Your task to perform on an android device: toggle notifications settings in the gmail app Image 0: 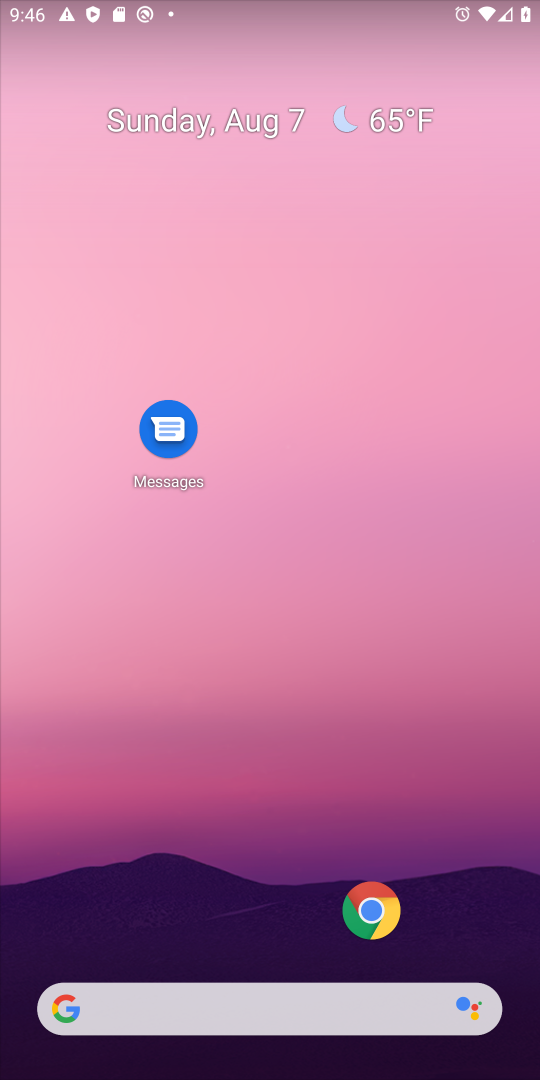
Step 0: drag from (233, 933) to (233, 557)
Your task to perform on an android device: toggle notifications settings in the gmail app Image 1: 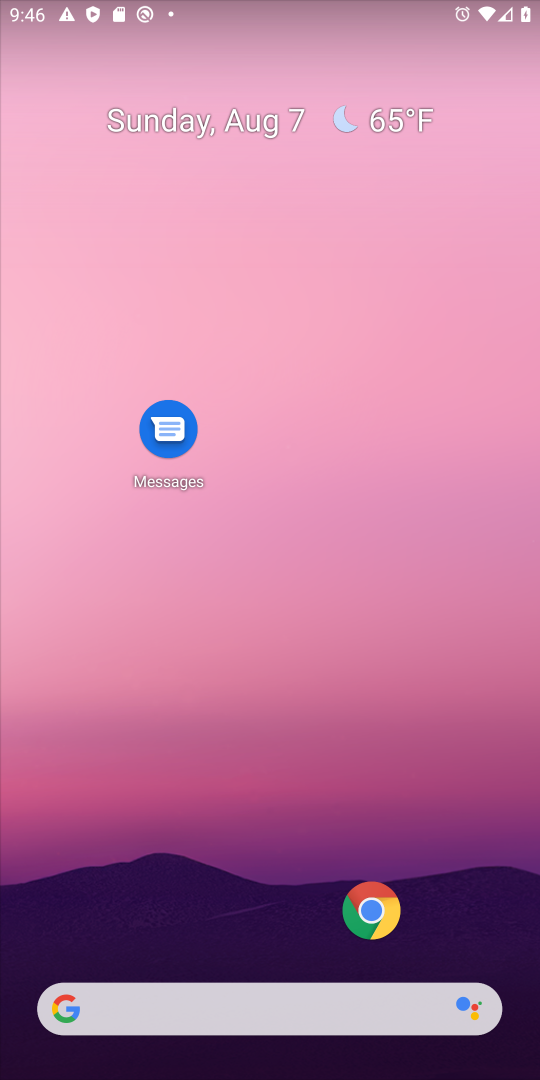
Step 1: drag from (247, 964) to (247, 411)
Your task to perform on an android device: toggle notifications settings in the gmail app Image 2: 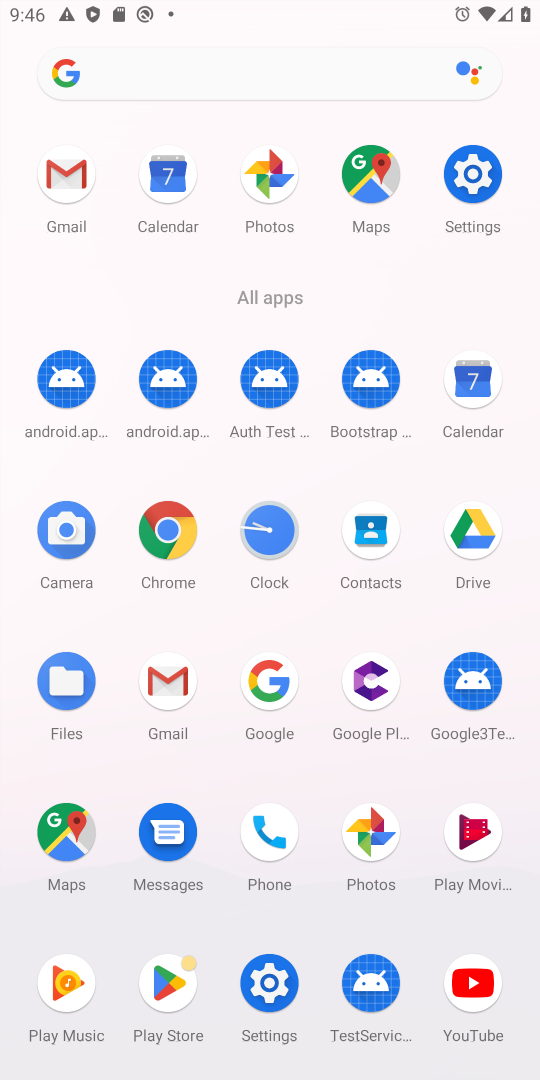
Step 2: click (80, 175)
Your task to perform on an android device: toggle notifications settings in the gmail app Image 3: 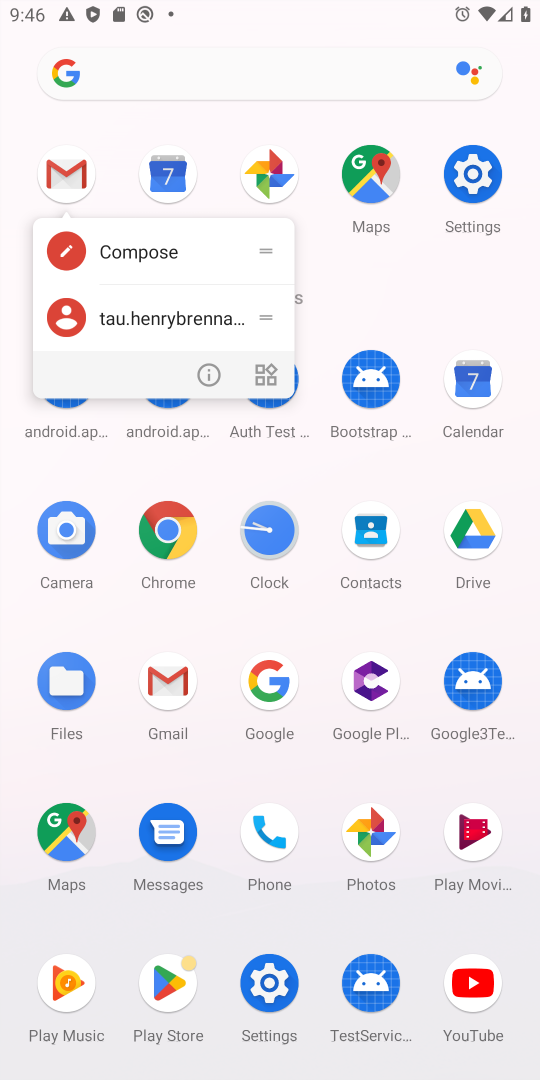
Step 3: click (58, 179)
Your task to perform on an android device: toggle notifications settings in the gmail app Image 4: 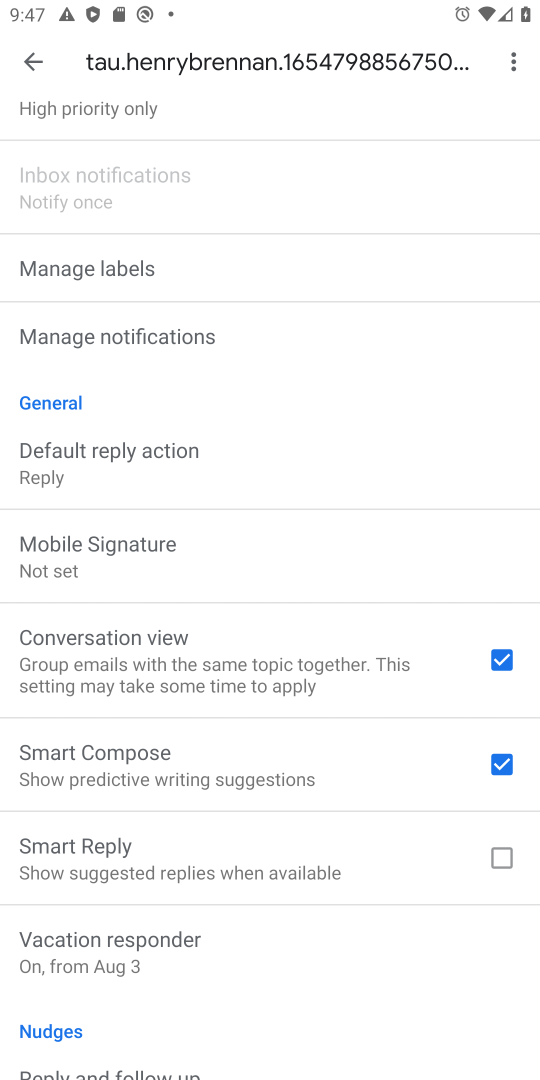
Step 4: drag from (143, 982) to (143, 398)
Your task to perform on an android device: toggle notifications settings in the gmail app Image 5: 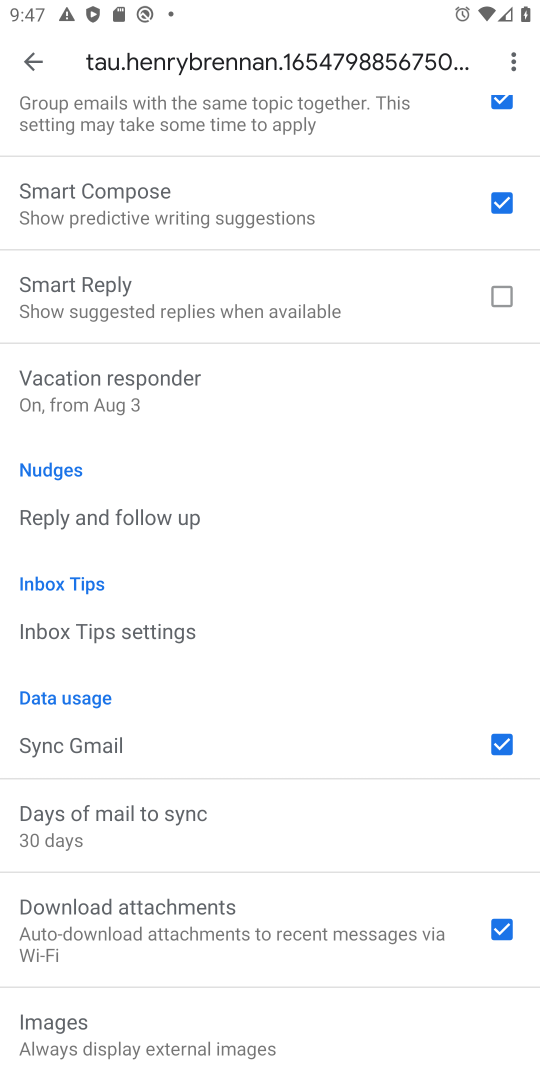
Step 5: drag from (114, 150) to (180, 747)
Your task to perform on an android device: toggle notifications settings in the gmail app Image 6: 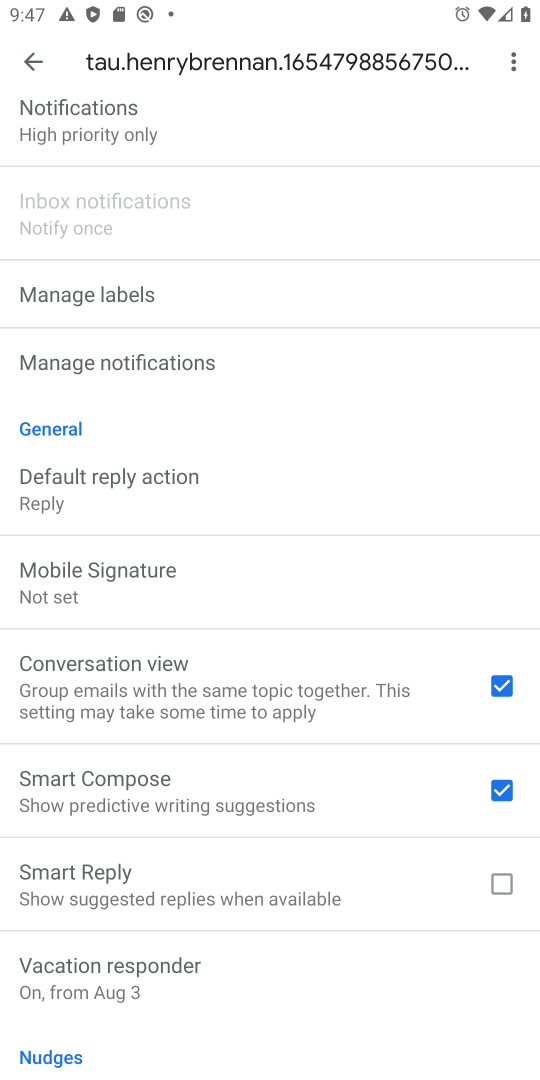
Step 6: drag from (103, 133) to (159, 619)
Your task to perform on an android device: toggle notifications settings in the gmail app Image 7: 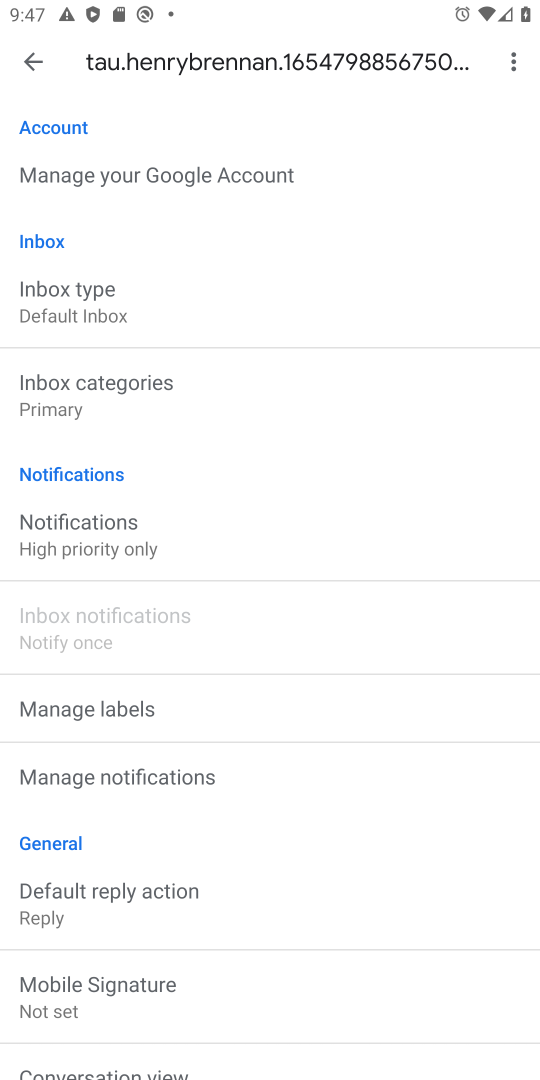
Step 7: drag from (84, 179) to (93, 653)
Your task to perform on an android device: toggle notifications settings in the gmail app Image 8: 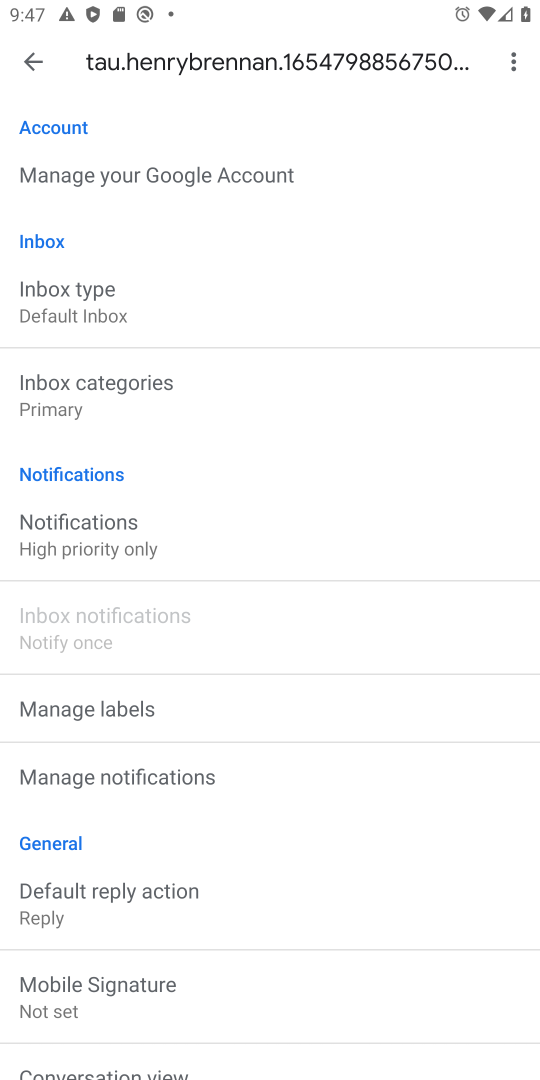
Step 8: click (84, 780)
Your task to perform on an android device: toggle notifications settings in the gmail app Image 9: 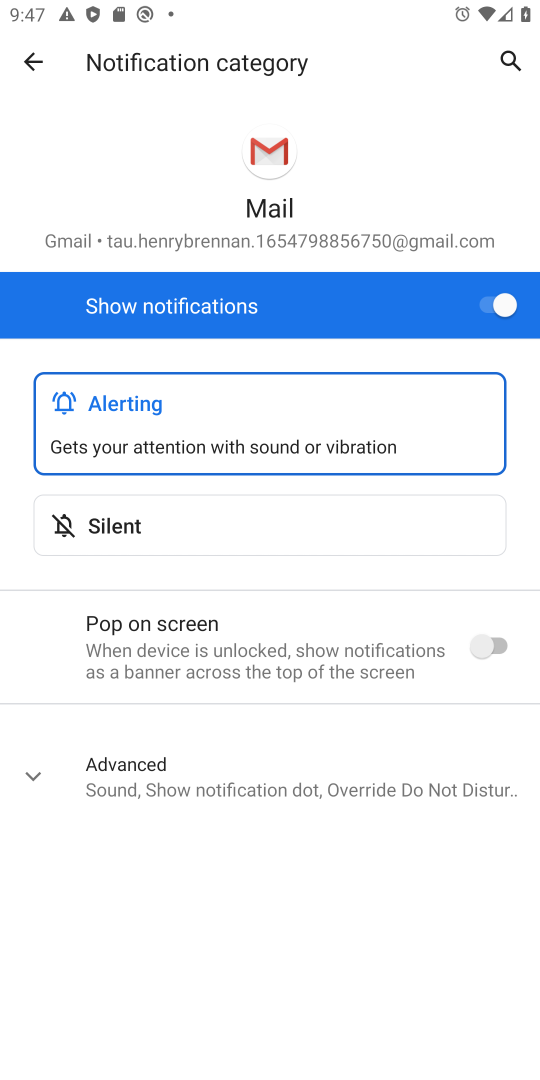
Step 9: click (487, 311)
Your task to perform on an android device: toggle notifications settings in the gmail app Image 10: 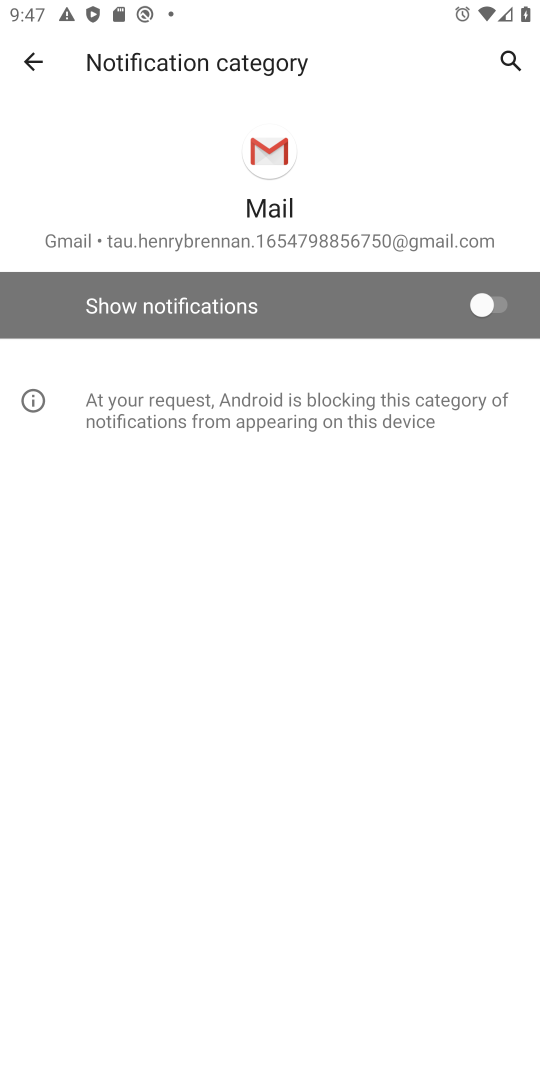
Step 10: task complete